Your task to perform on an android device: What's the weather? Image 0: 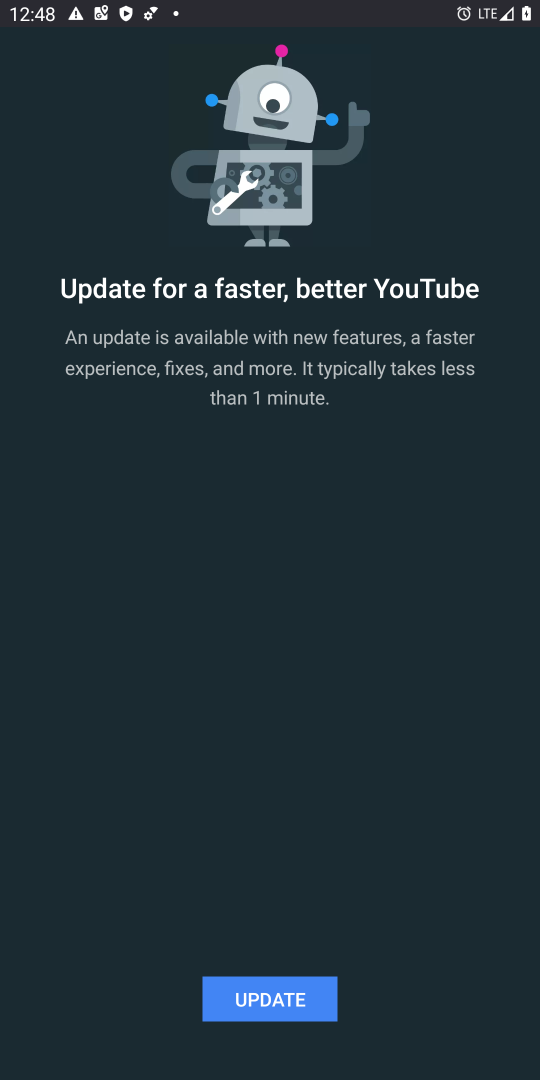
Step 0: press home button
Your task to perform on an android device: What's the weather? Image 1: 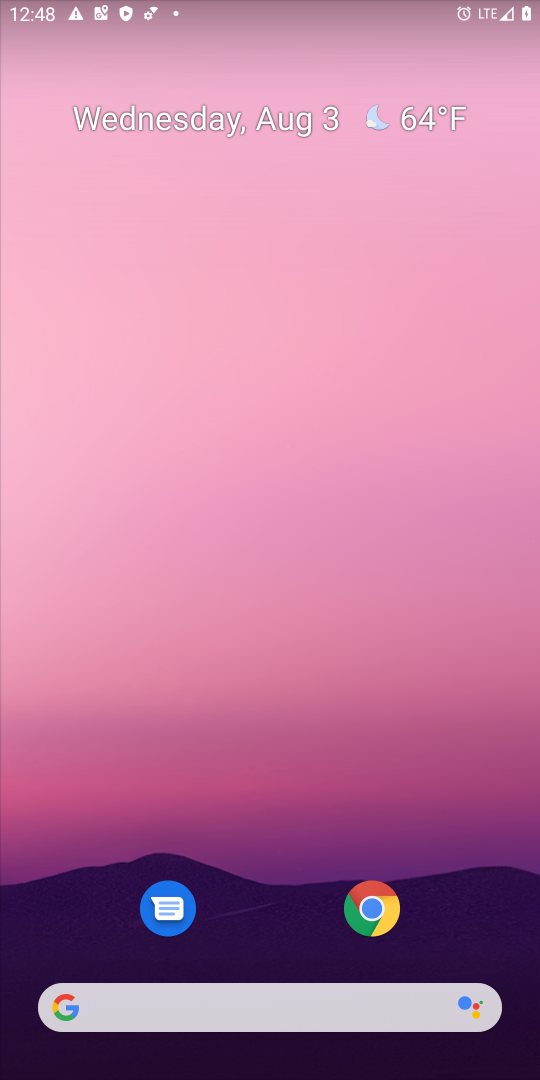
Step 1: drag from (274, 746) to (321, 162)
Your task to perform on an android device: What's the weather? Image 2: 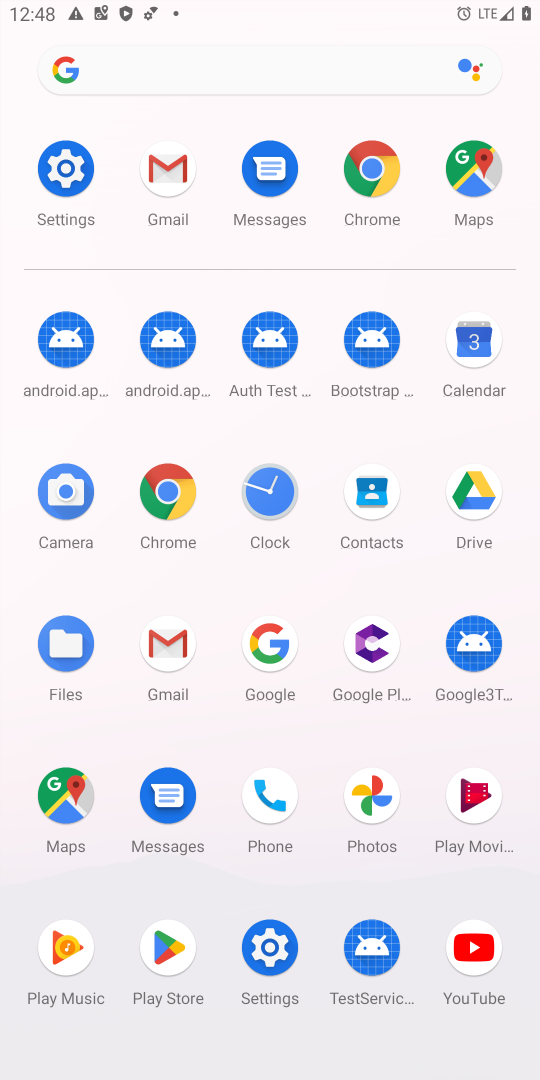
Step 2: click (167, 507)
Your task to perform on an android device: What's the weather? Image 3: 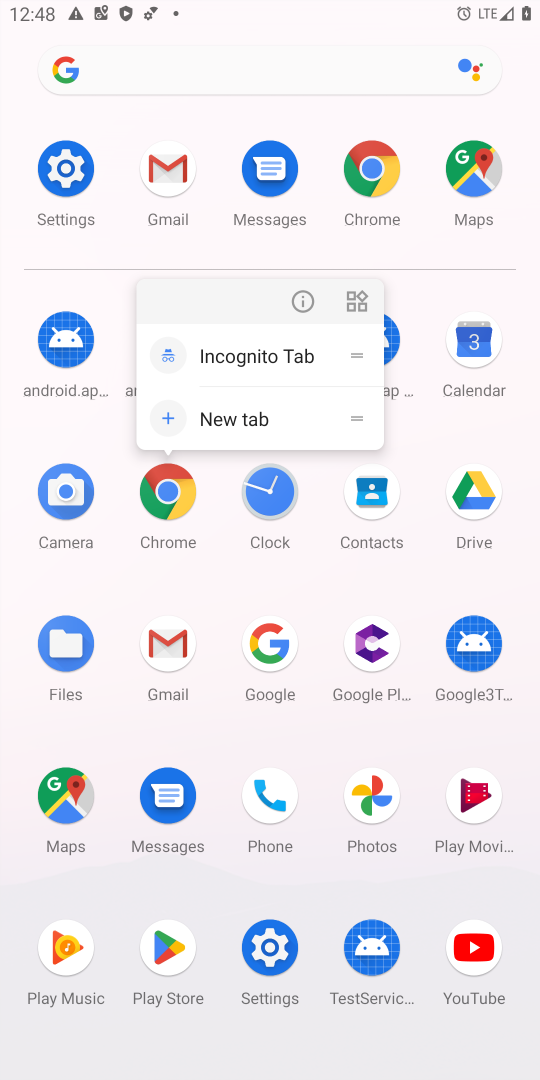
Step 3: click (167, 504)
Your task to perform on an android device: What's the weather? Image 4: 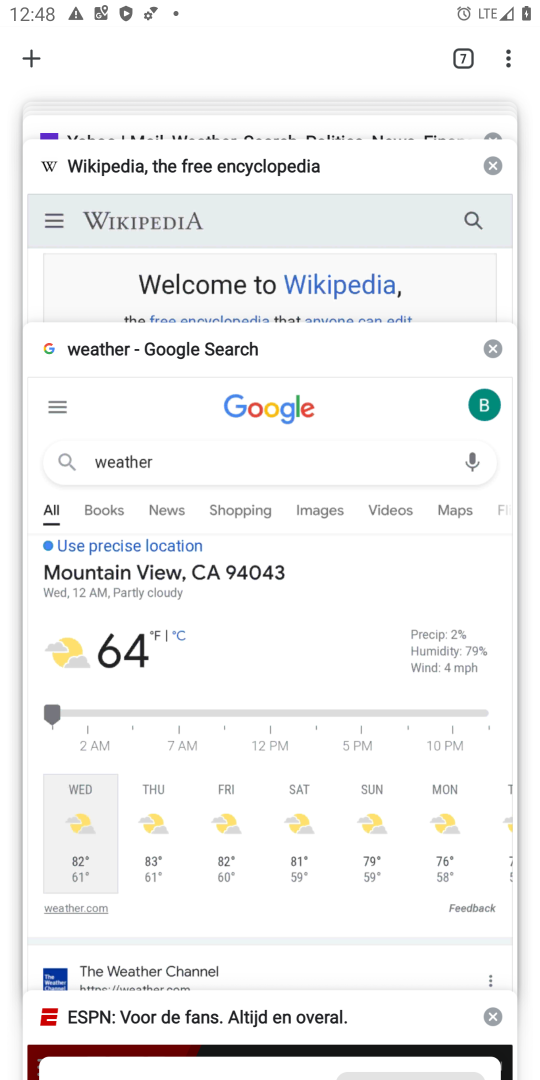
Step 4: click (226, 423)
Your task to perform on an android device: What's the weather? Image 5: 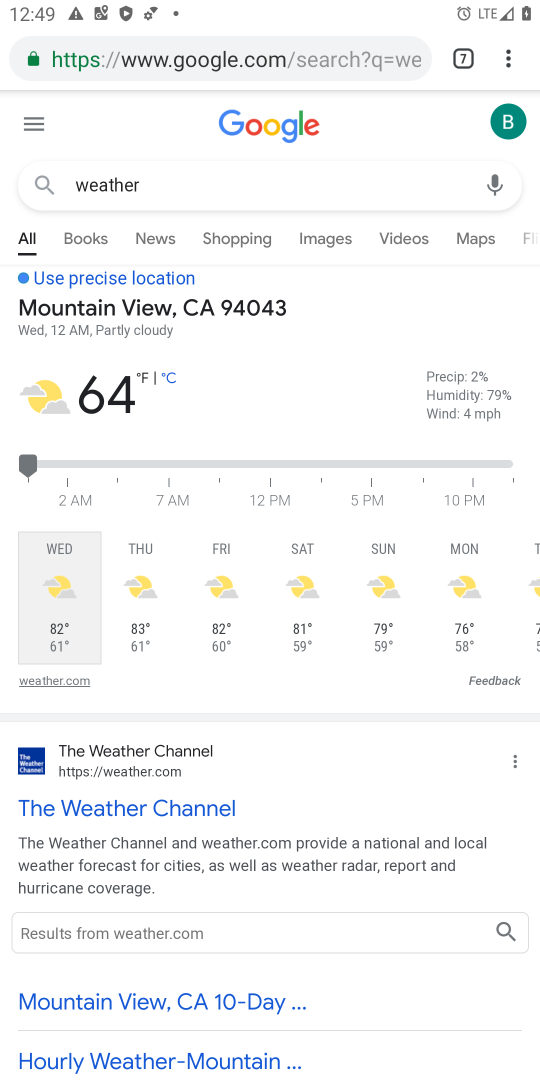
Step 5: task complete